Your task to perform on an android device: Go to Google Image 0: 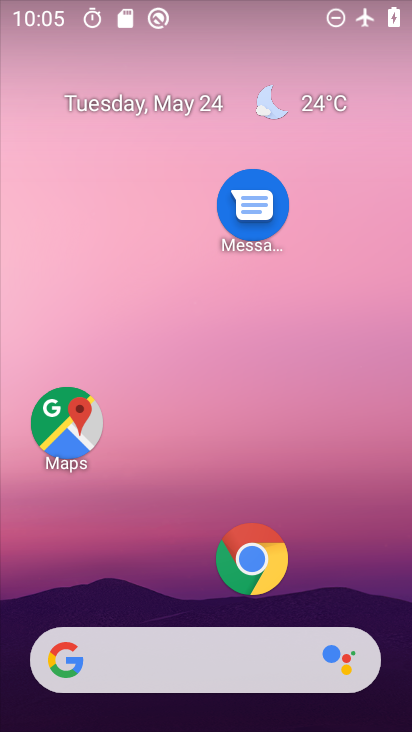
Step 0: drag from (175, 606) to (187, 215)
Your task to perform on an android device: Go to Google Image 1: 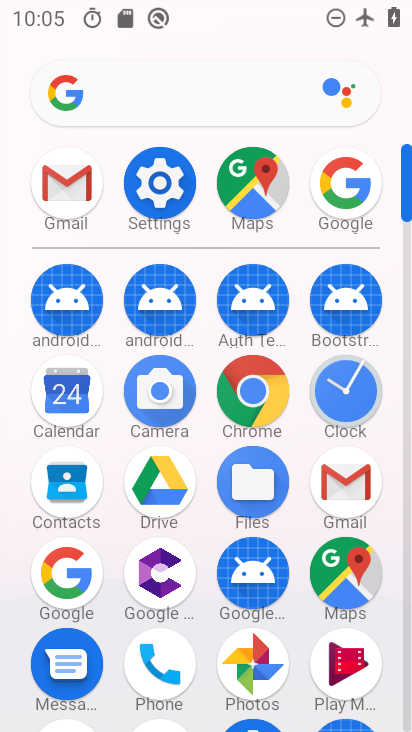
Step 1: click (327, 175)
Your task to perform on an android device: Go to Google Image 2: 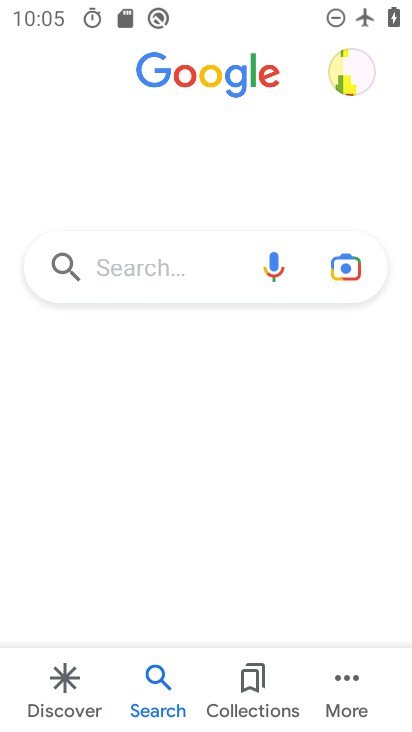
Step 2: task complete